Your task to perform on an android device: install app "LinkedIn" Image 0: 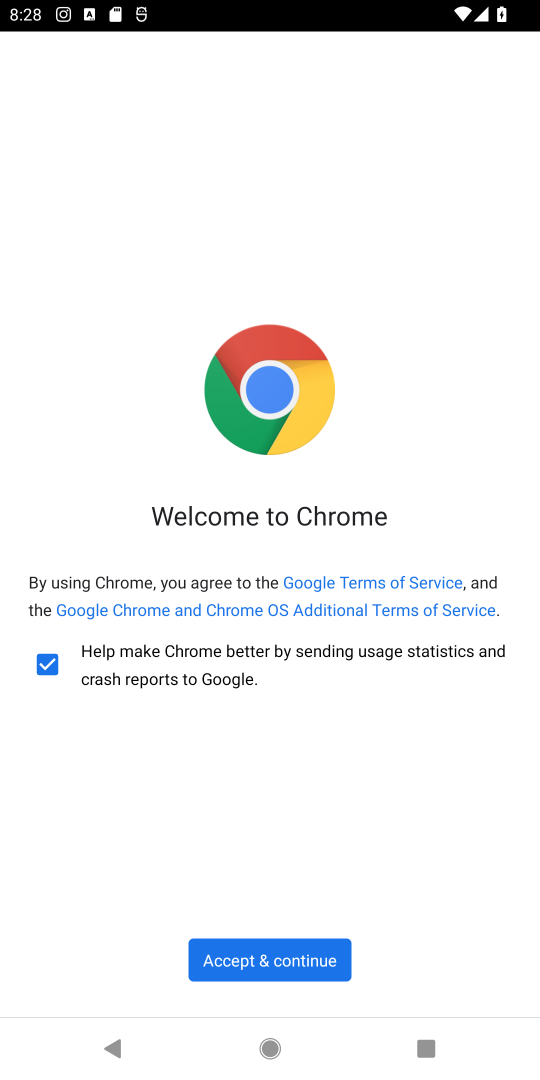
Step 0: press home button
Your task to perform on an android device: install app "LinkedIn" Image 1: 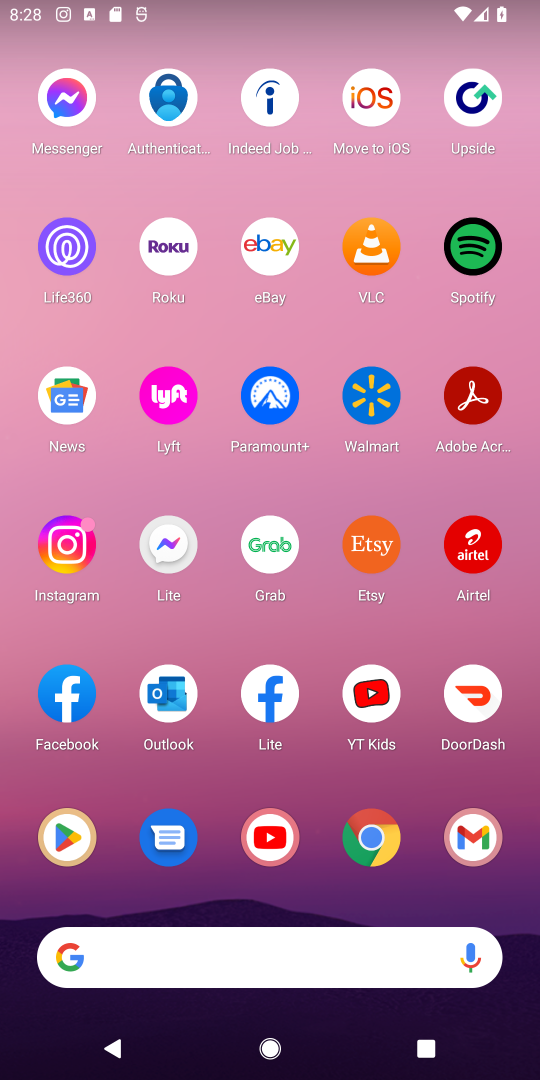
Step 1: click (55, 829)
Your task to perform on an android device: install app "LinkedIn" Image 2: 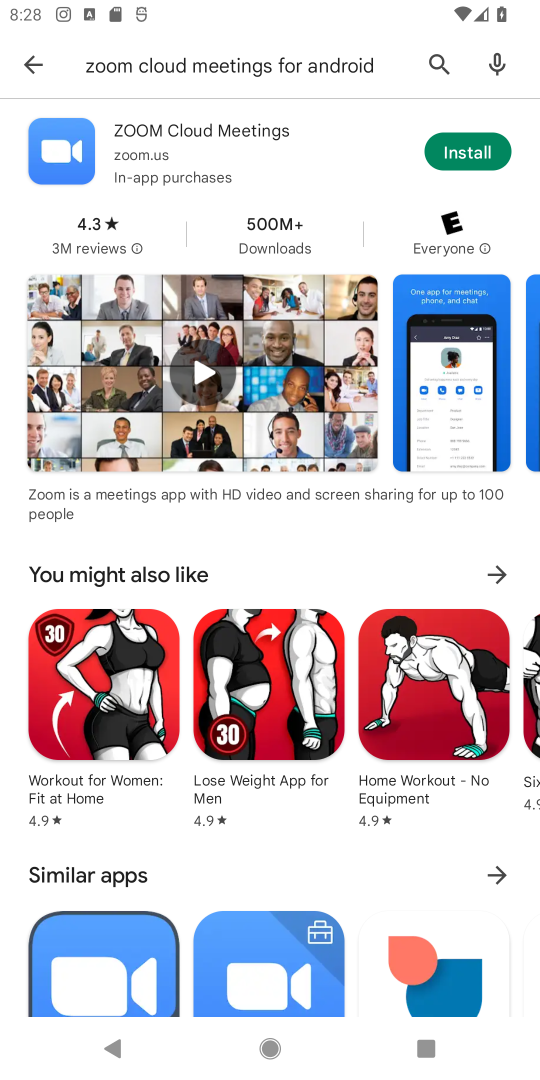
Step 2: click (438, 61)
Your task to perform on an android device: install app "LinkedIn" Image 3: 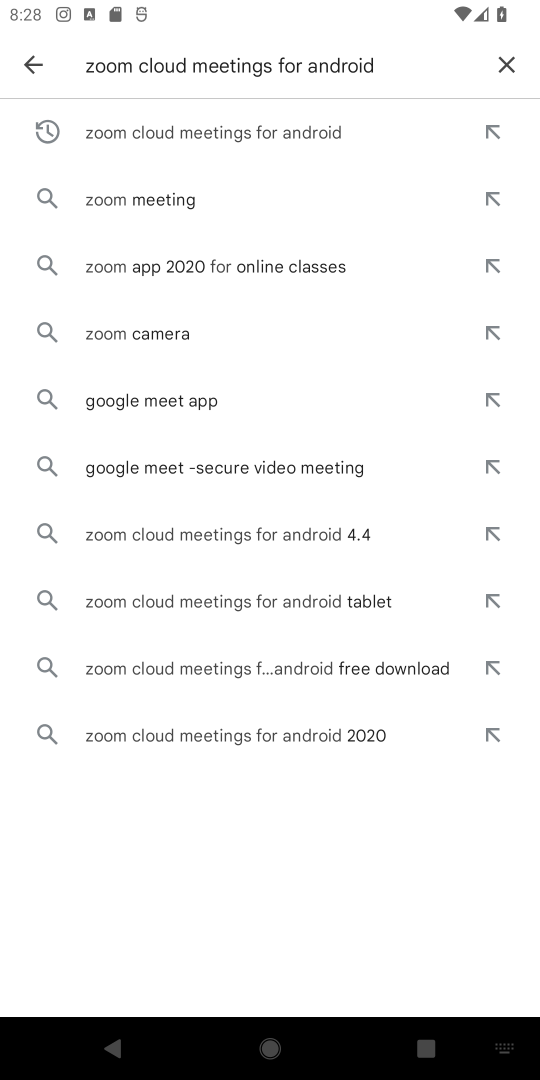
Step 3: click (499, 60)
Your task to perform on an android device: install app "LinkedIn" Image 4: 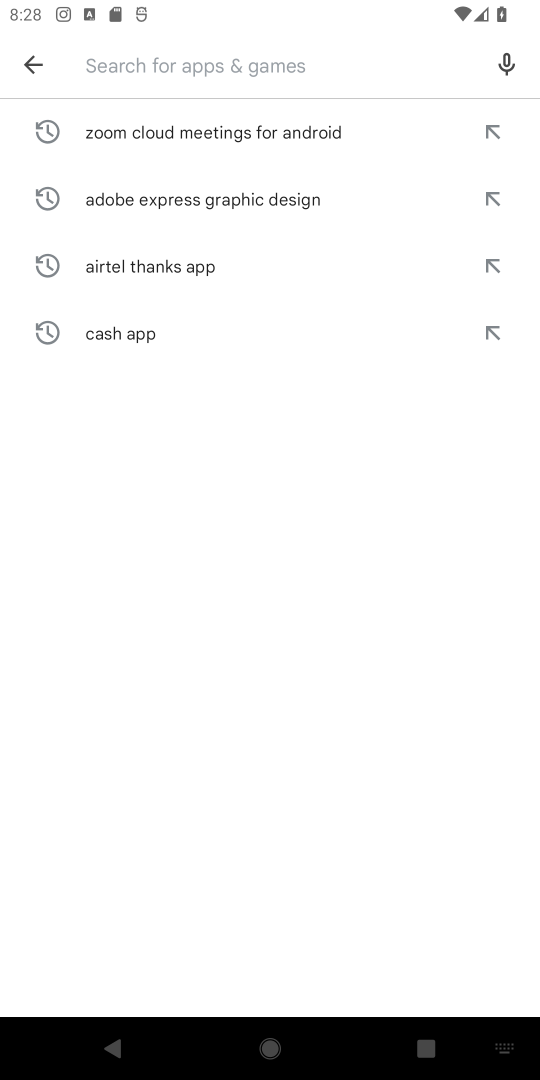
Step 4: type "LinkedIn"
Your task to perform on an android device: install app "LinkedIn" Image 5: 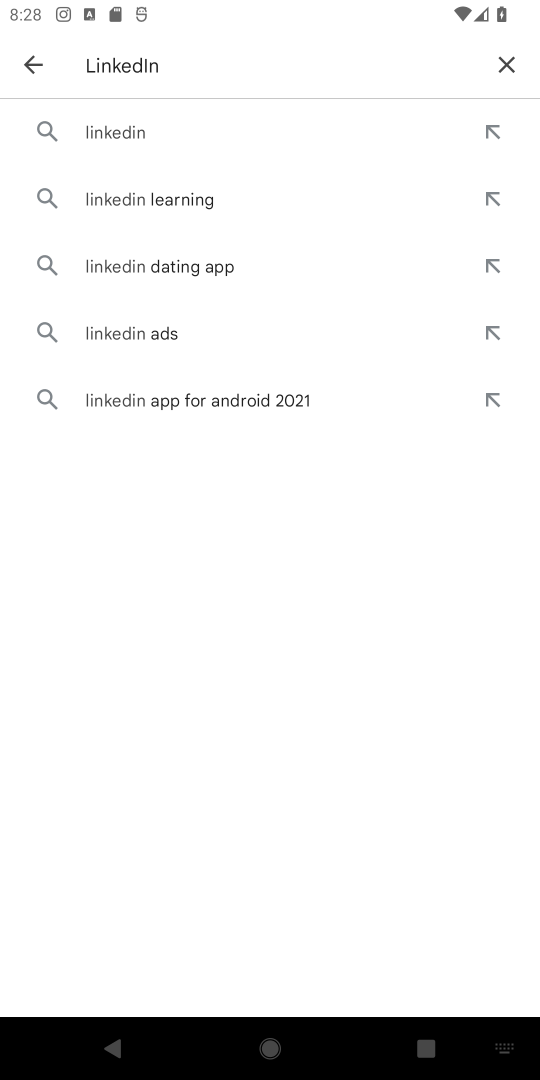
Step 5: click (101, 134)
Your task to perform on an android device: install app "LinkedIn" Image 6: 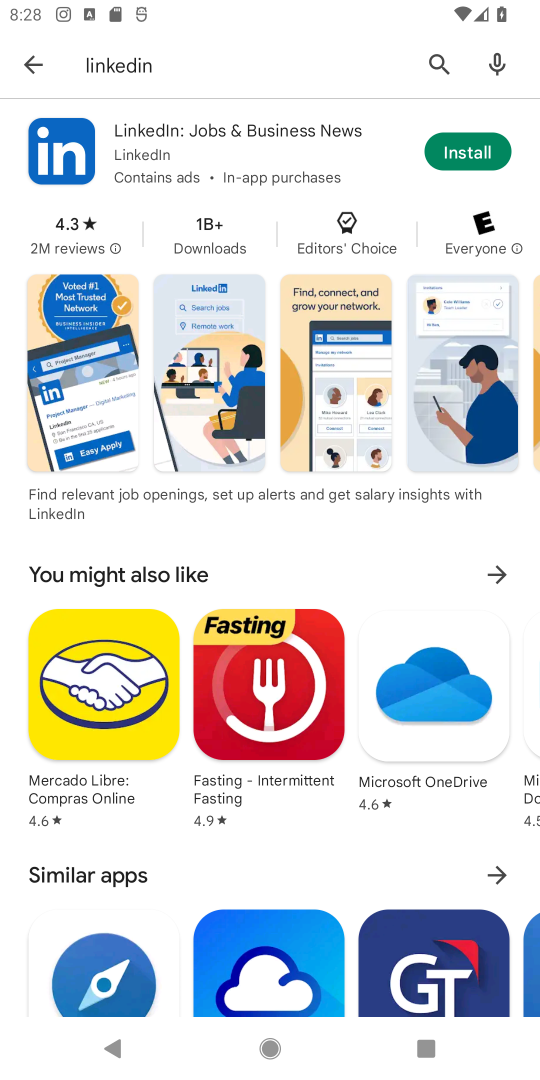
Step 6: click (449, 156)
Your task to perform on an android device: install app "LinkedIn" Image 7: 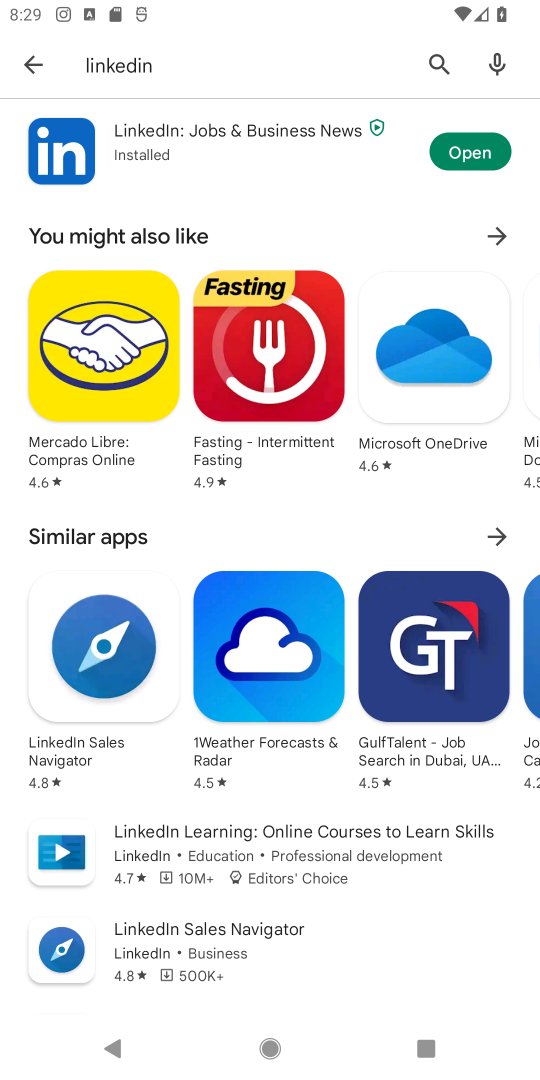
Step 7: task complete